Your task to perform on an android device: add a contact Image 0: 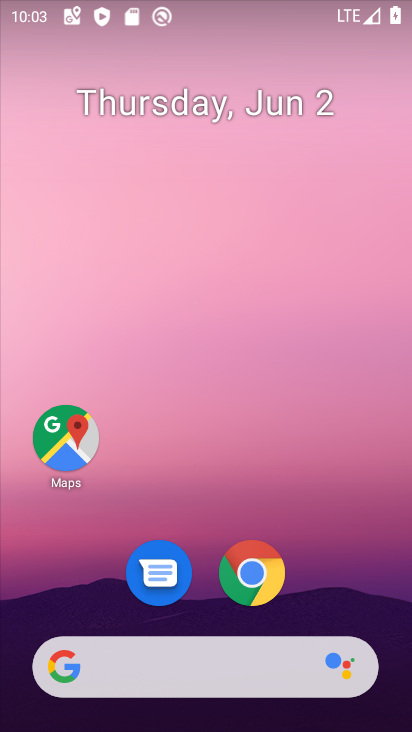
Step 0: drag from (317, 550) to (247, 25)
Your task to perform on an android device: add a contact Image 1: 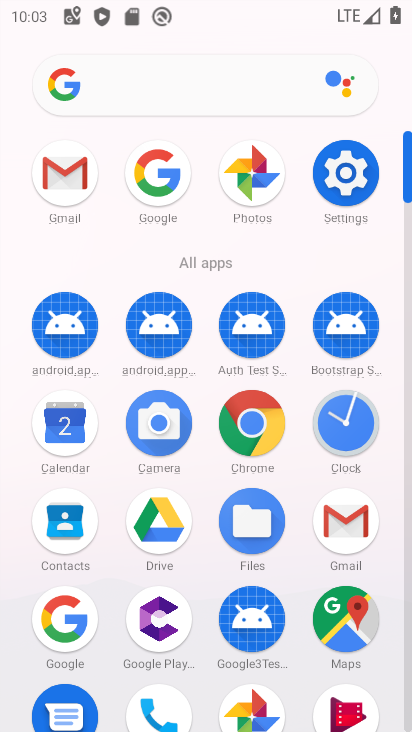
Step 1: click (64, 526)
Your task to perform on an android device: add a contact Image 2: 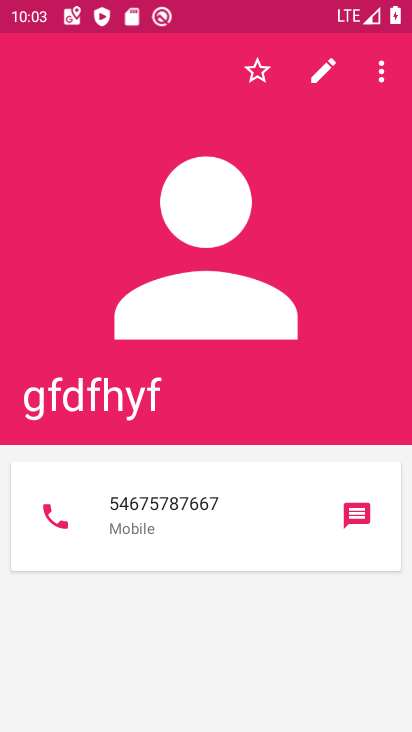
Step 2: task complete